Your task to perform on an android device: Search for "beats solo 3" on amazon, select the first entry, add it to the cart, then select checkout. Image 0: 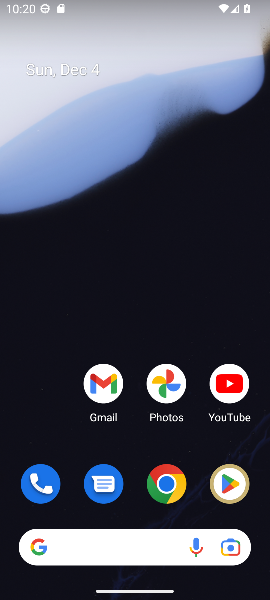
Step 0: click (169, 485)
Your task to perform on an android device: Search for "beats solo 3" on amazon, select the first entry, add it to the cart, then select checkout. Image 1: 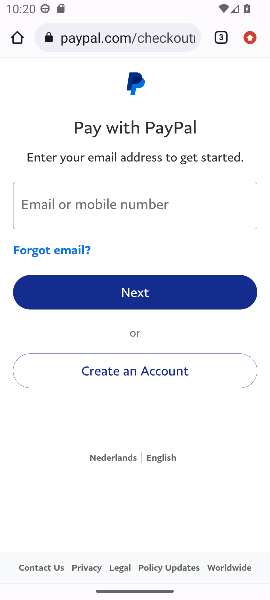
Step 1: click (119, 39)
Your task to perform on an android device: Search for "beats solo 3" on amazon, select the first entry, add it to the cart, then select checkout. Image 2: 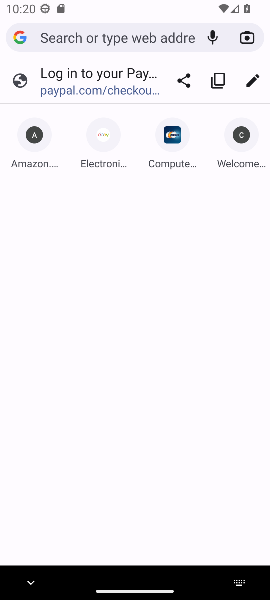
Step 2: click (32, 155)
Your task to perform on an android device: Search for "beats solo 3" on amazon, select the first entry, add it to the cart, then select checkout. Image 3: 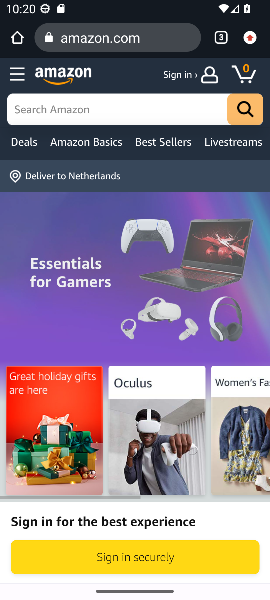
Step 3: click (75, 109)
Your task to perform on an android device: Search for "beats solo 3" on amazon, select the first entry, add it to the cart, then select checkout. Image 4: 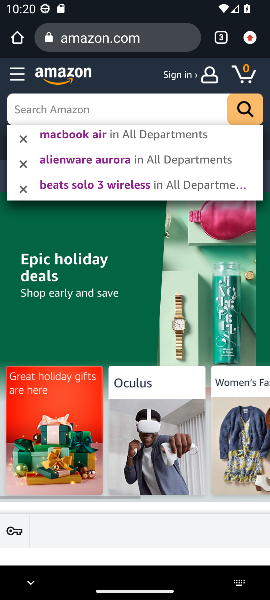
Step 4: type "beats solo 3"
Your task to perform on an android device: Search for "beats solo 3" on amazon, select the first entry, add it to the cart, then select checkout. Image 5: 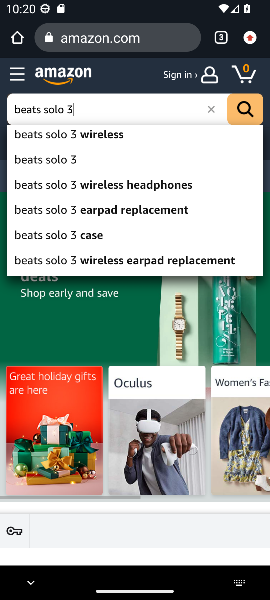
Step 5: click (57, 163)
Your task to perform on an android device: Search for "beats solo 3" on amazon, select the first entry, add it to the cart, then select checkout. Image 6: 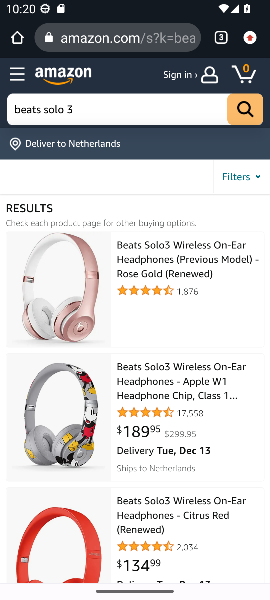
Step 6: click (139, 271)
Your task to perform on an android device: Search for "beats solo 3" on amazon, select the first entry, add it to the cart, then select checkout. Image 7: 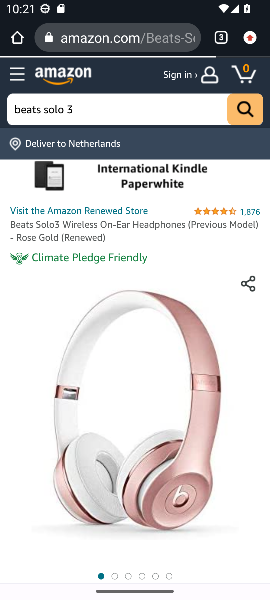
Step 7: task complete